Your task to perform on an android device: Open Chrome and go to the settings page Image 0: 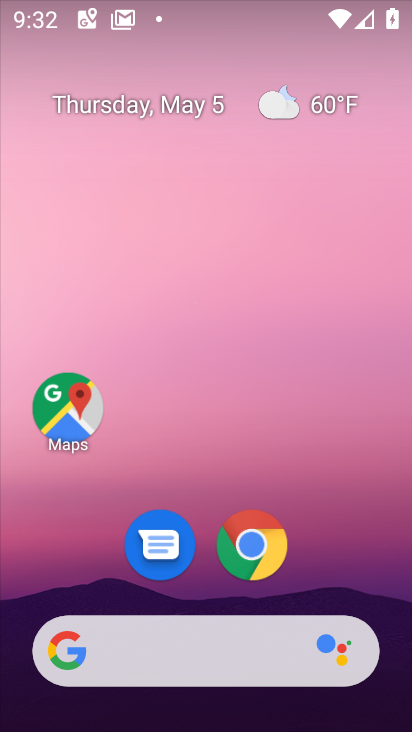
Step 0: click (258, 562)
Your task to perform on an android device: Open Chrome and go to the settings page Image 1: 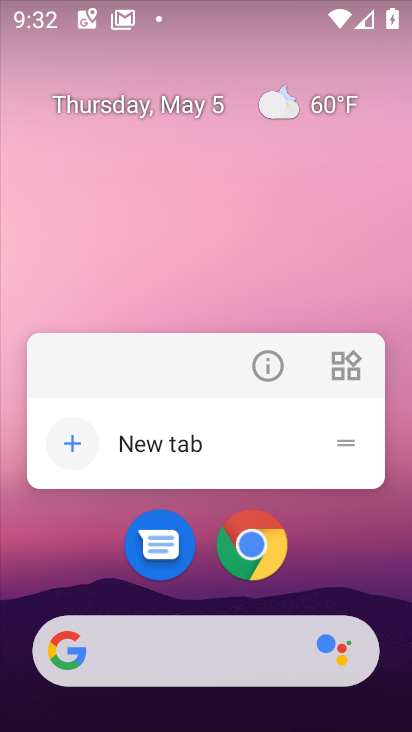
Step 1: click (256, 559)
Your task to perform on an android device: Open Chrome and go to the settings page Image 2: 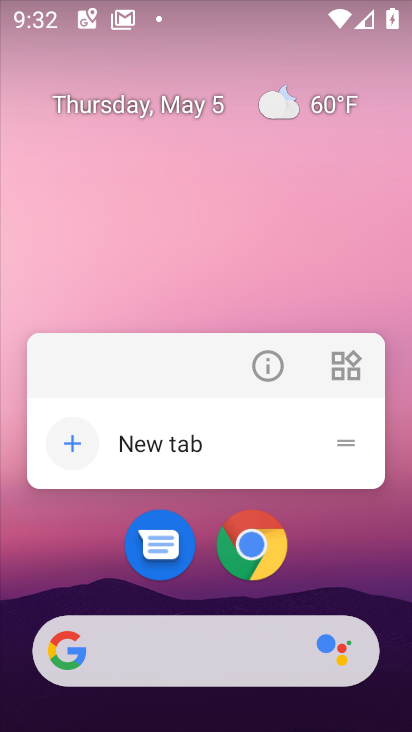
Step 2: click (255, 546)
Your task to perform on an android device: Open Chrome and go to the settings page Image 3: 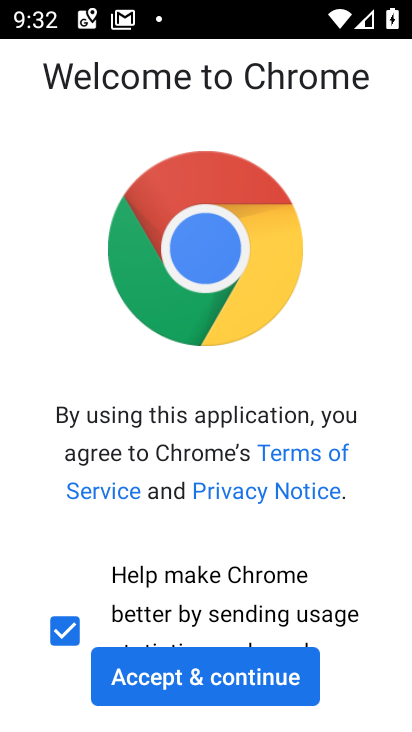
Step 3: click (201, 698)
Your task to perform on an android device: Open Chrome and go to the settings page Image 4: 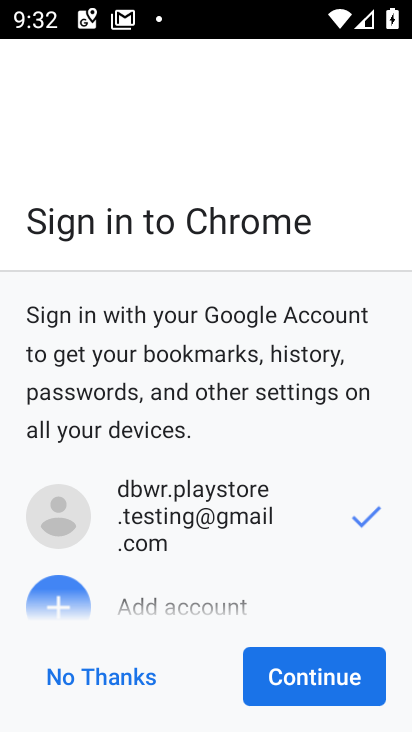
Step 4: click (349, 679)
Your task to perform on an android device: Open Chrome and go to the settings page Image 5: 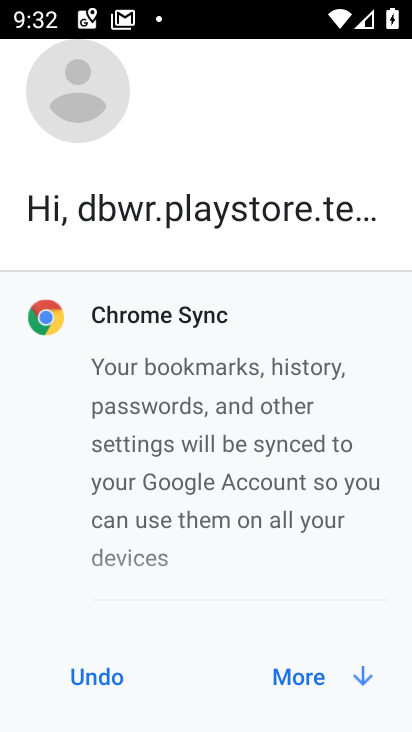
Step 5: click (330, 679)
Your task to perform on an android device: Open Chrome and go to the settings page Image 6: 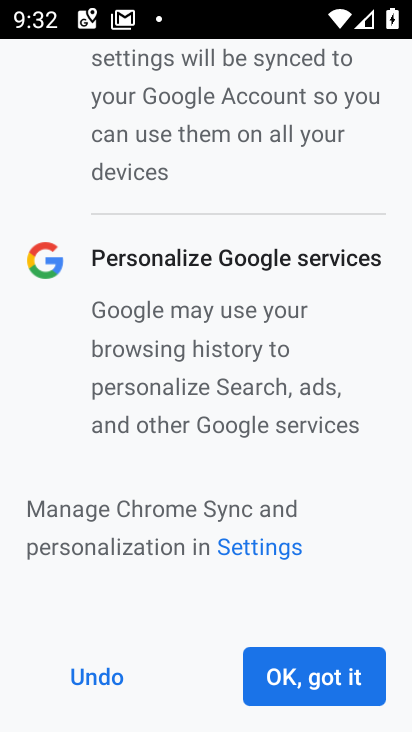
Step 6: click (330, 679)
Your task to perform on an android device: Open Chrome and go to the settings page Image 7: 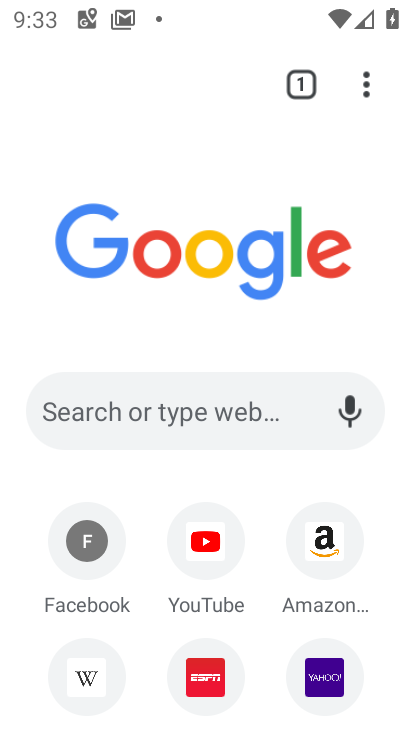
Step 7: task complete